Your task to perform on an android device: Go to ESPN.com Image 0: 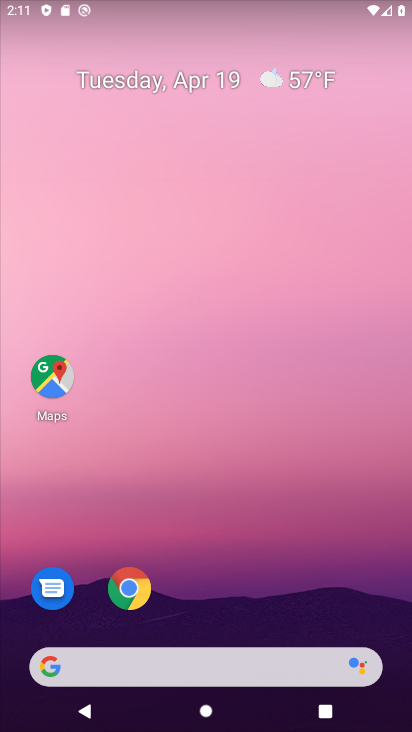
Step 0: click (118, 587)
Your task to perform on an android device: Go to ESPN.com Image 1: 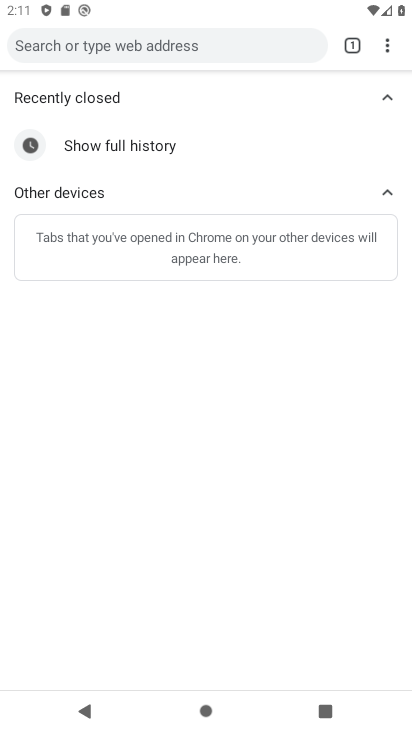
Step 1: click (387, 41)
Your task to perform on an android device: Go to ESPN.com Image 2: 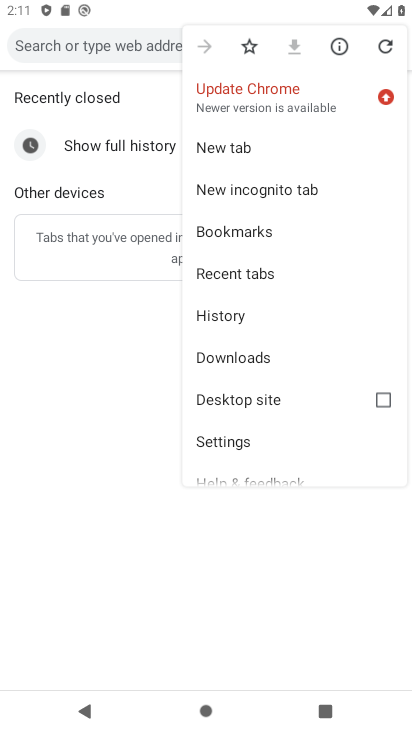
Step 2: click (285, 149)
Your task to perform on an android device: Go to ESPN.com Image 3: 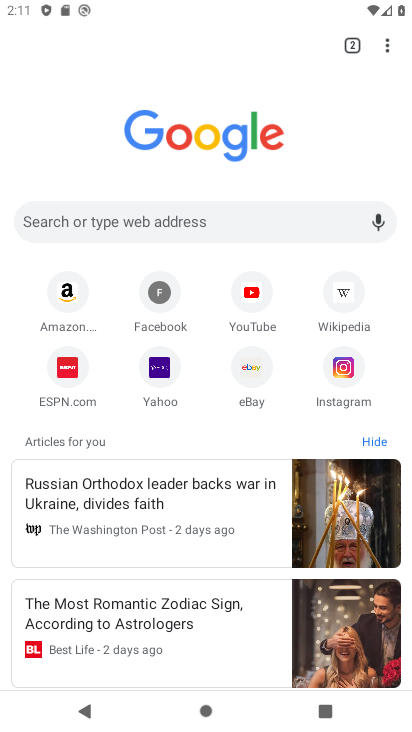
Step 3: click (261, 215)
Your task to perform on an android device: Go to ESPN.com Image 4: 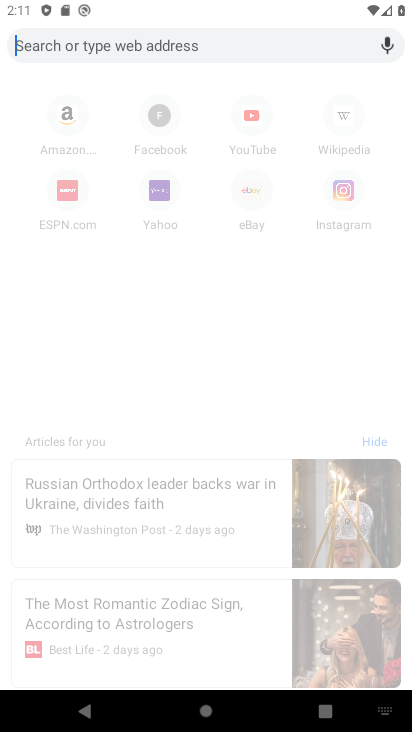
Step 4: type "ESPN.com"
Your task to perform on an android device: Go to ESPN.com Image 5: 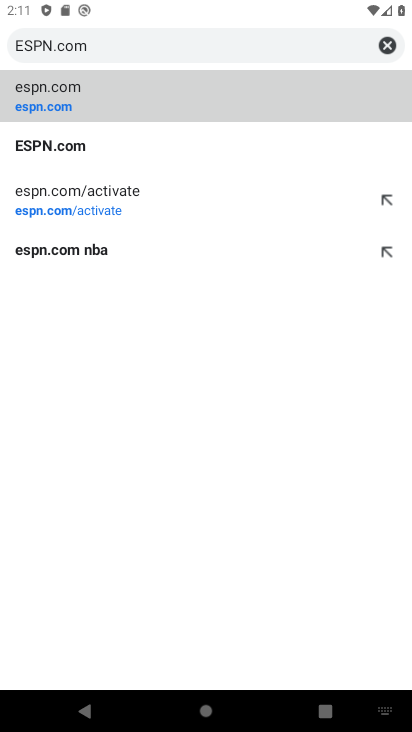
Step 5: click (103, 95)
Your task to perform on an android device: Go to ESPN.com Image 6: 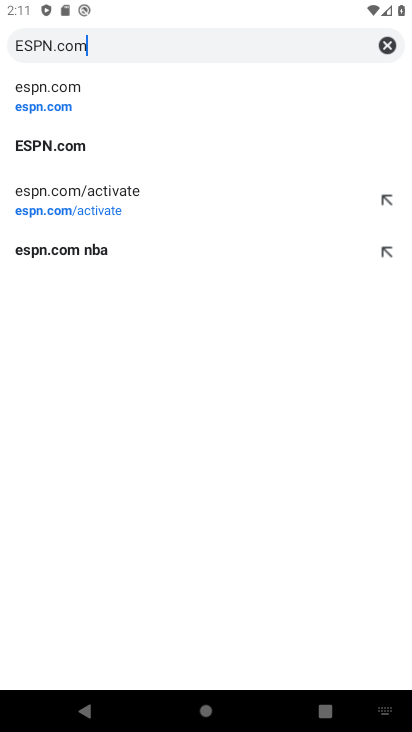
Step 6: click (61, 98)
Your task to perform on an android device: Go to ESPN.com Image 7: 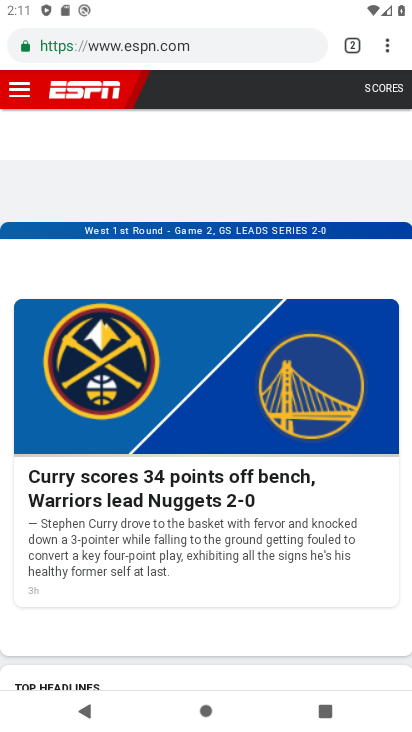
Step 7: task complete